Your task to perform on an android device: allow cookies in the chrome app Image 0: 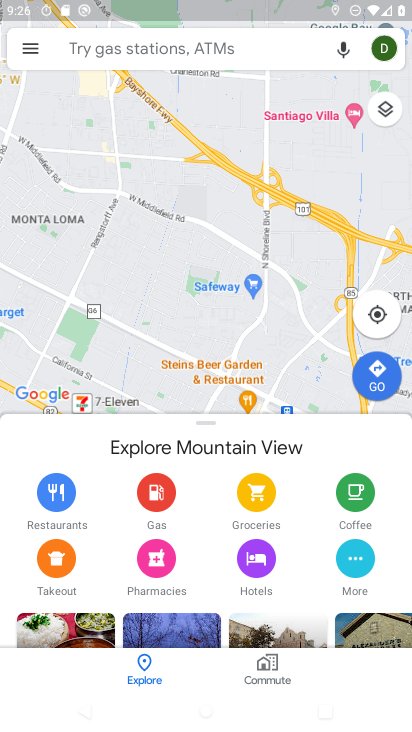
Step 0: press home button
Your task to perform on an android device: allow cookies in the chrome app Image 1: 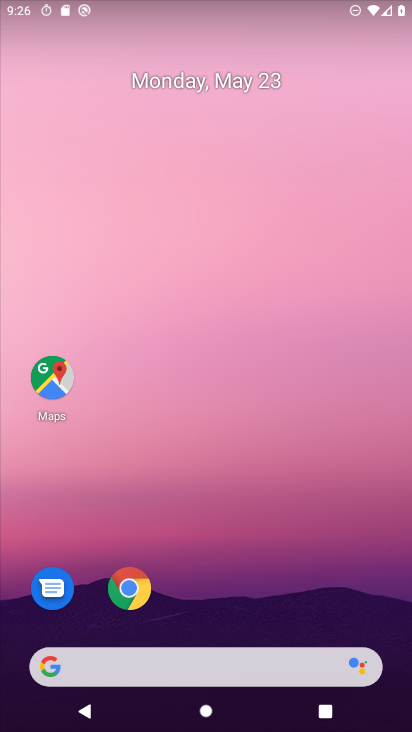
Step 1: click (138, 579)
Your task to perform on an android device: allow cookies in the chrome app Image 2: 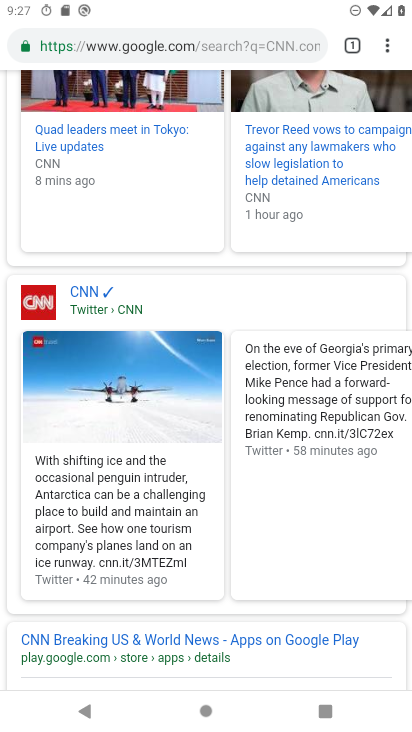
Step 2: click (389, 41)
Your task to perform on an android device: allow cookies in the chrome app Image 3: 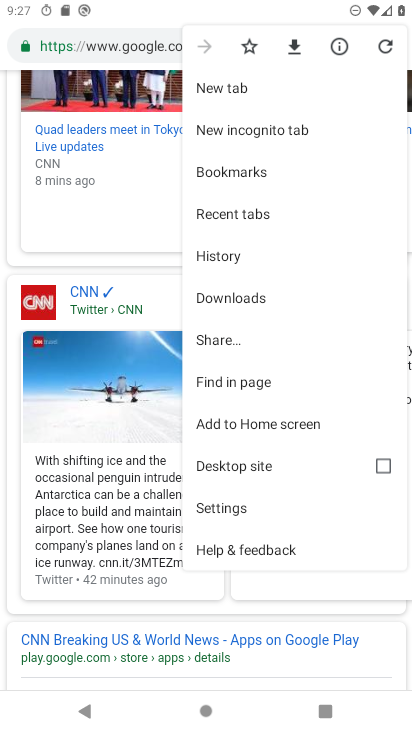
Step 3: click (216, 501)
Your task to perform on an android device: allow cookies in the chrome app Image 4: 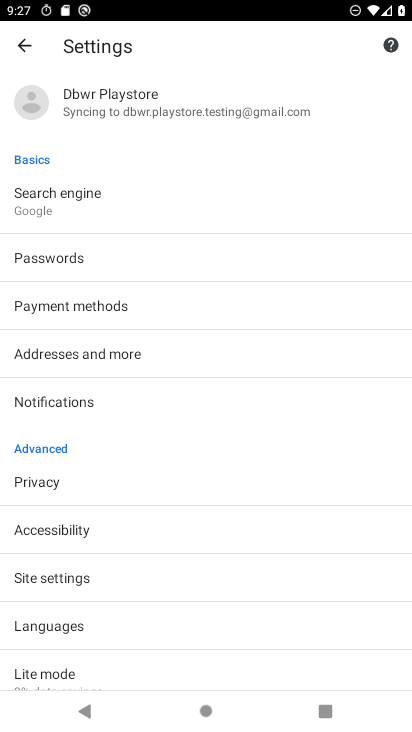
Step 4: click (64, 584)
Your task to perform on an android device: allow cookies in the chrome app Image 5: 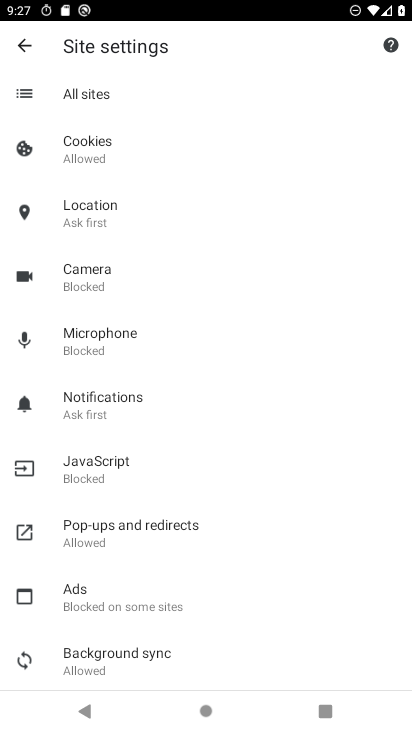
Step 5: click (74, 150)
Your task to perform on an android device: allow cookies in the chrome app Image 6: 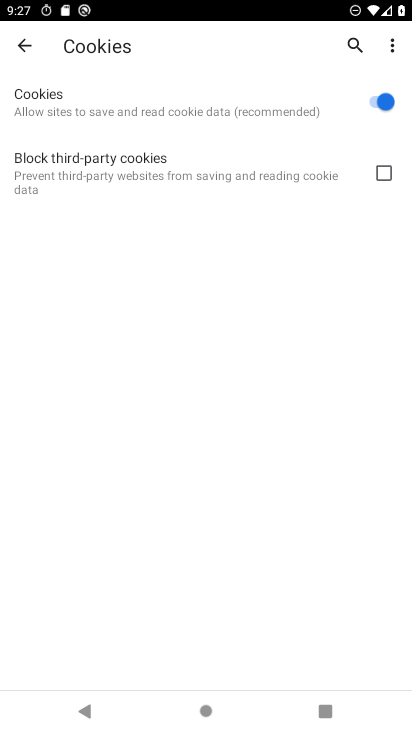
Step 6: task complete